Your task to perform on an android device: turn off improve location accuracy Image 0: 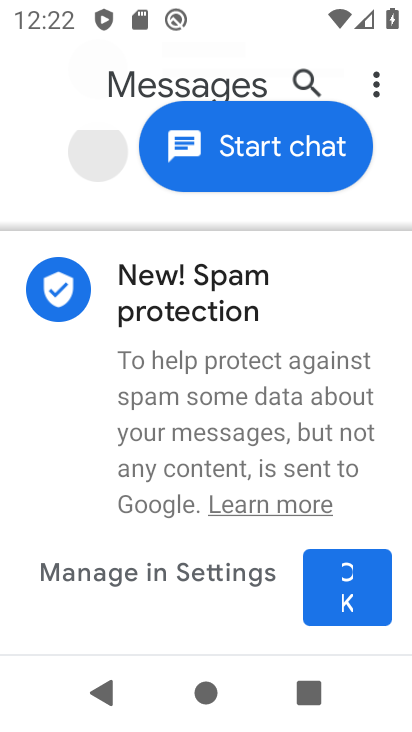
Step 0: drag from (344, 526) to (312, 238)
Your task to perform on an android device: turn off improve location accuracy Image 1: 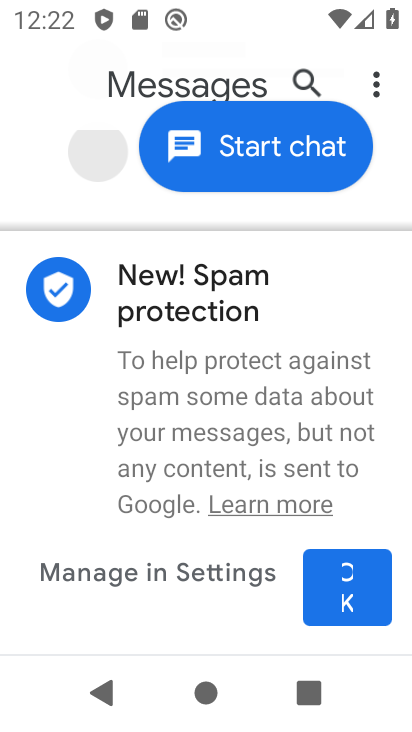
Step 1: press home button
Your task to perform on an android device: turn off improve location accuracy Image 2: 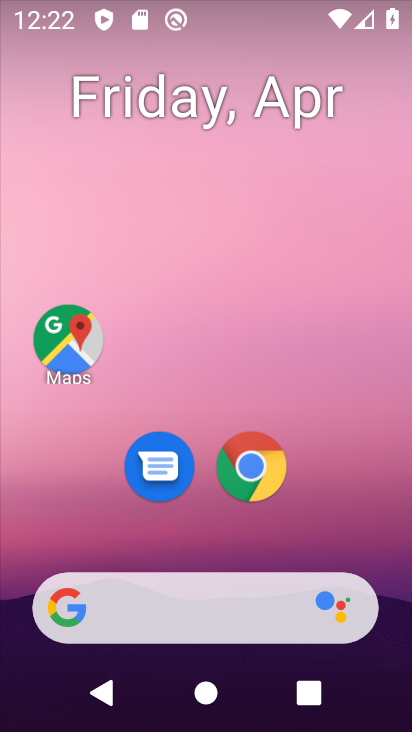
Step 2: drag from (370, 529) to (344, 181)
Your task to perform on an android device: turn off improve location accuracy Image 3: 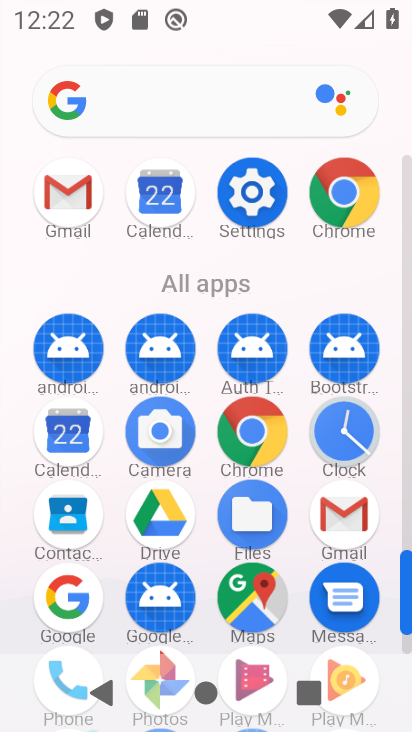
Step 3: click (248, 194)
Your task to perform on an android device: turn off improve location accuracy Image 4: 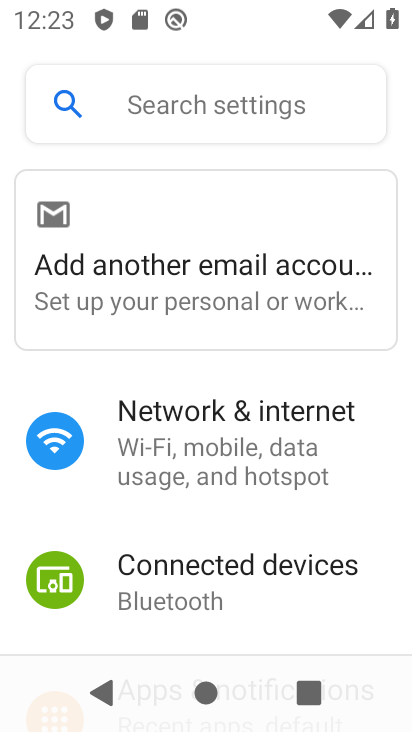
Step 4: drag from (331, 599) to (324, 180)
Your task to perform on an android device: turn off improve location accuracy Image 5: 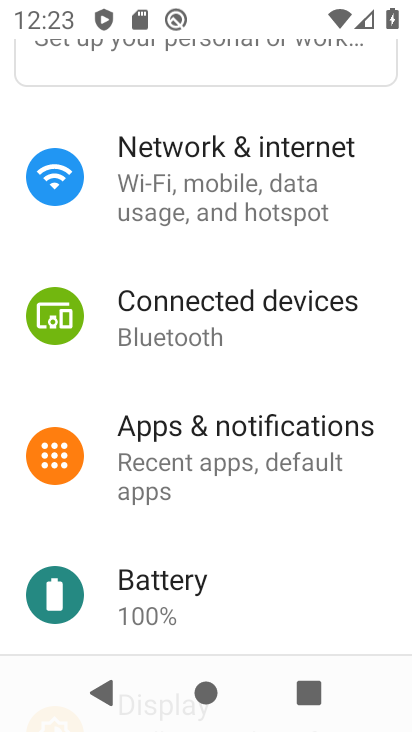
Step 5: drag from (307, 544) to (293, 179)
Your task to perform on an android device: turn off improve location accuracy Image 6: 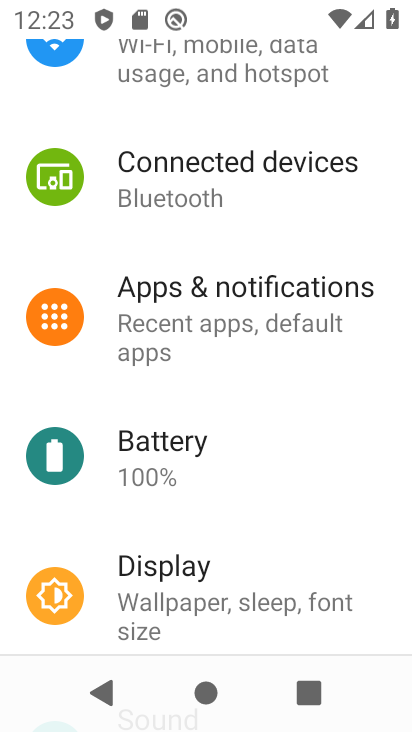
Step 6: drag from (323, 636) to (306, 163)
Your task to perform on an android device: turn off improve location accuracy Image 7: 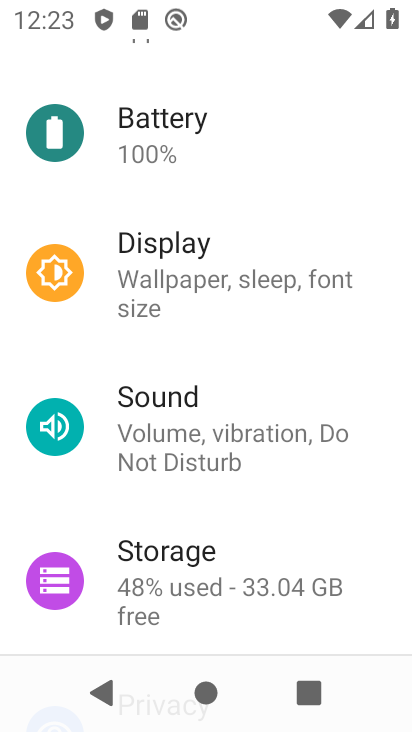
Step 7: drag from (361, 543) to (299, 91)
Your task to perform on an android device: turn off improve location accuracy Image 8: 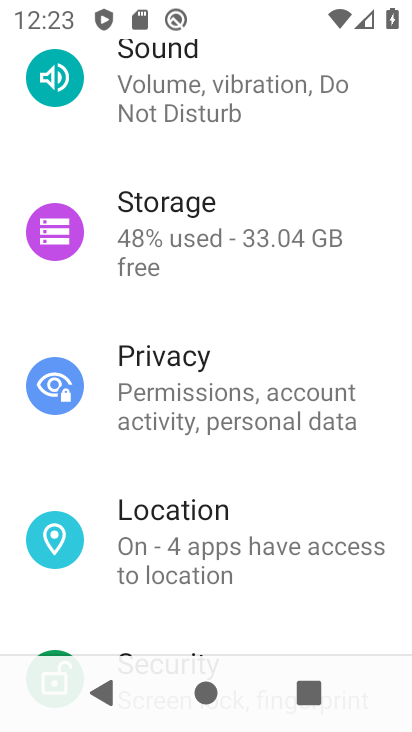
Step 8: click (240, 544)
Your task to perform on an android device: turn off improve location accuracy Image 9: 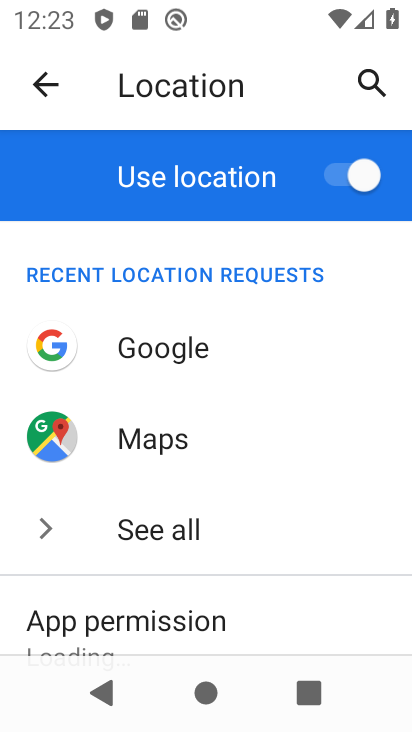
Step 9: drag from (314, 594) to (314, 285)
Your task to perform on an android device: turn off improve location accuracy Image 10: 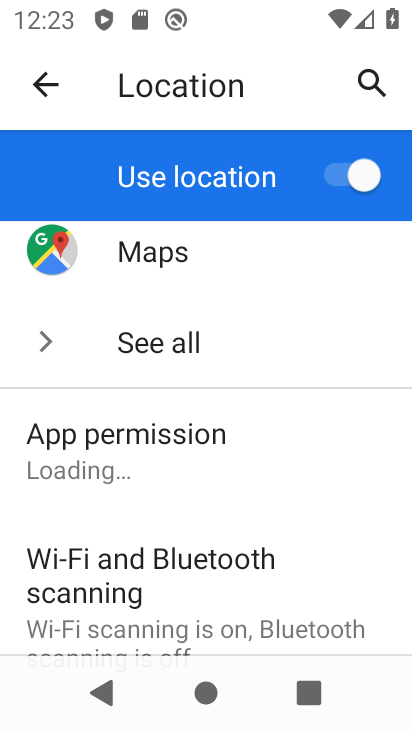
Step 10: drag from (321, 577) to (313, 277)
Your task to perform on an android device: turn off improve location accuracy Image 11: 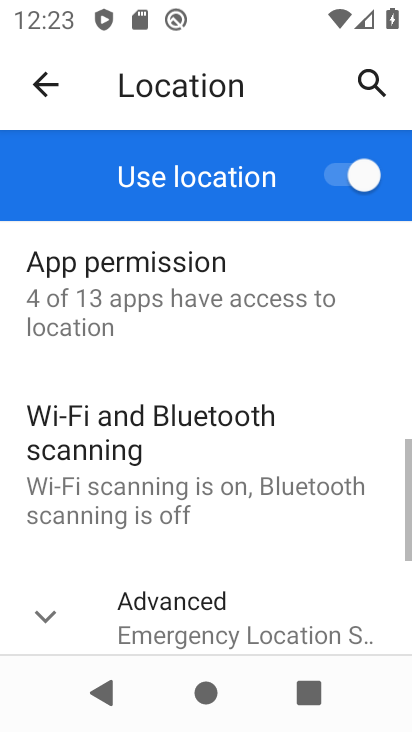
Step 11: drag from (316, 500) to (316, 309)
Your task to perform on an android device: turn off improve location accuracy Image 12: 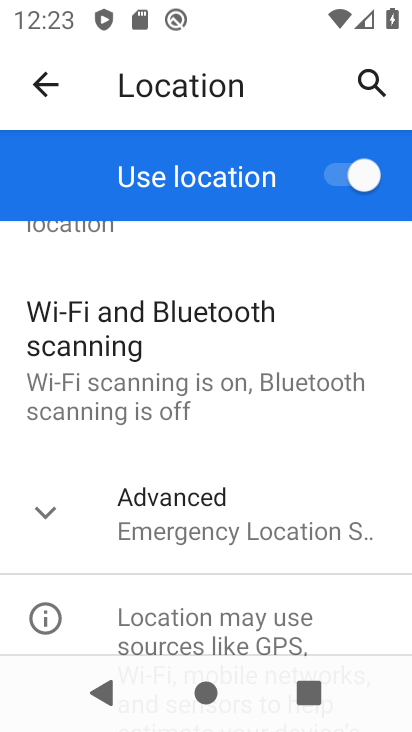
Step 12: click (274, 535)
Your task to perform on an android device: turn off improve location accuracy Image 13: 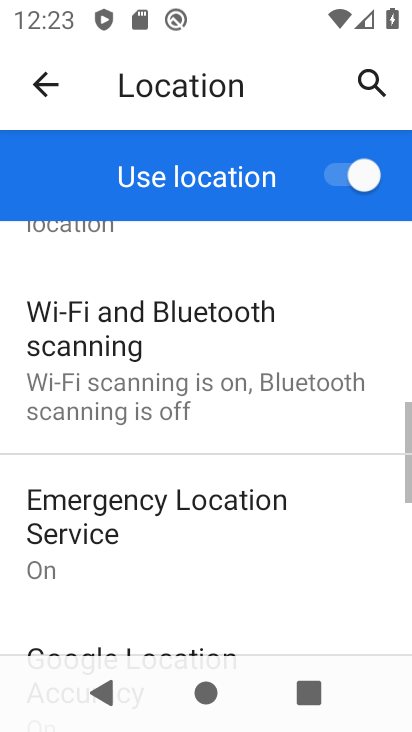
Step 13: drag from (323, 568) to (369, 300)
Your task to perform on an android device: turn off improve location accuracy Image 14: 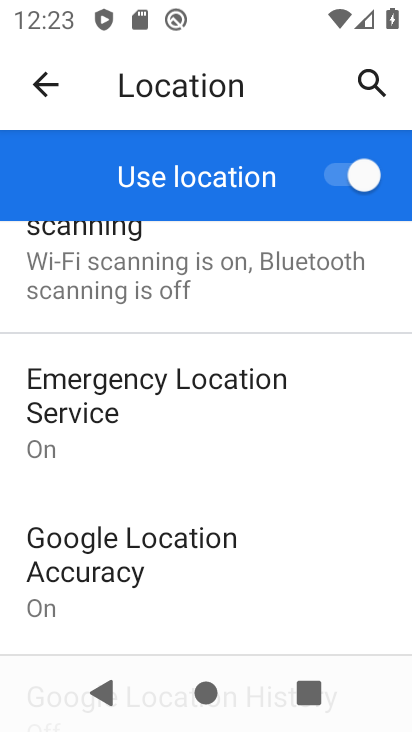
Step 14: drag from (324, 561) to (357, 334)
Your task to perform on an android device: turn off improve location accuracy Image 15: 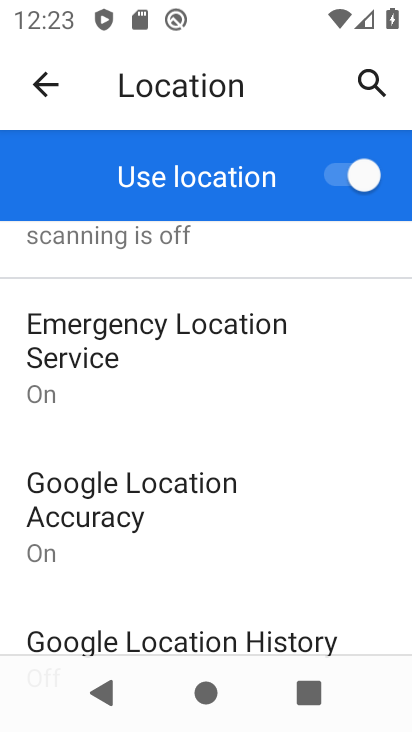
Step 15: click (198, 487)
Your task to perform on an android device: turn off improve location accuracy Image 16: 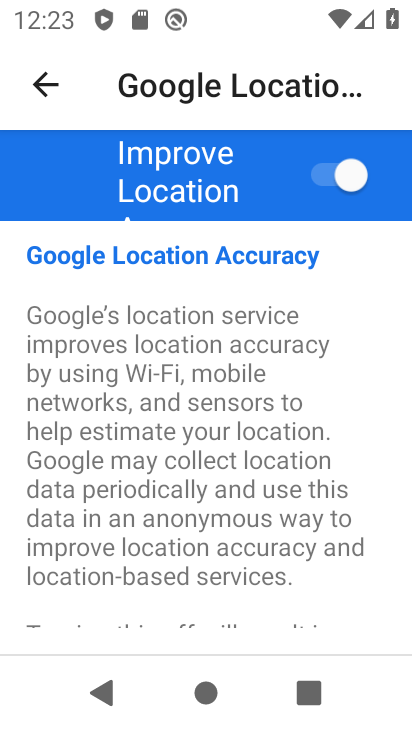
Step 16: click (321, 183)
Your task to perform on an android device: turn off improve location accuracy Image 17: 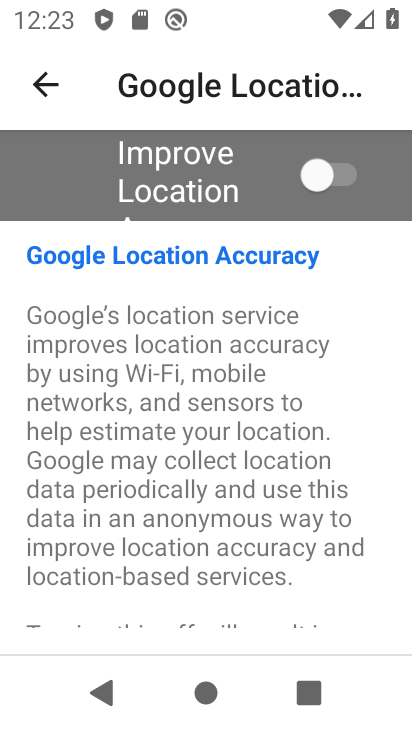
Step 17: task complete